Your task to perform on an android device: Open battery settings Image 0: 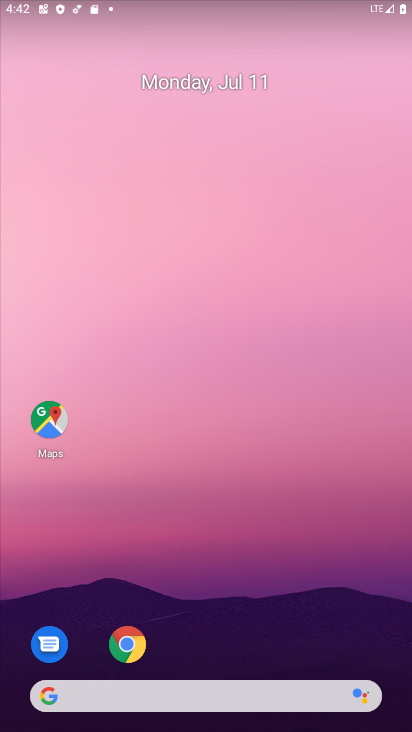
Step 0: press home button
Your task to perform on an android device: Open battery settings Image 1: 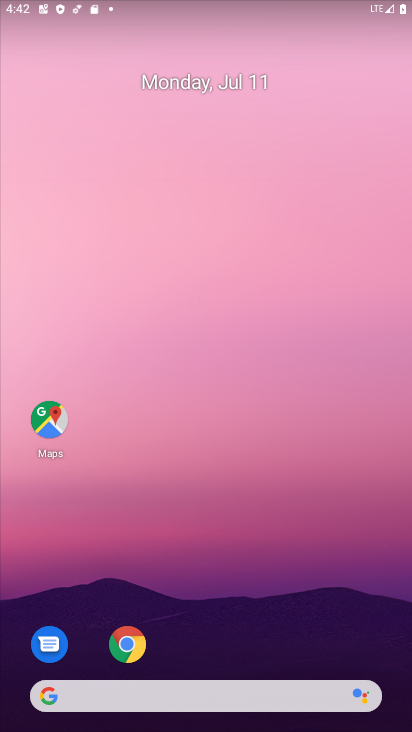
Step 1: drag from (277, 518) to (244, 114)
Your task to perform on an android device: Open battery settings Image 2: 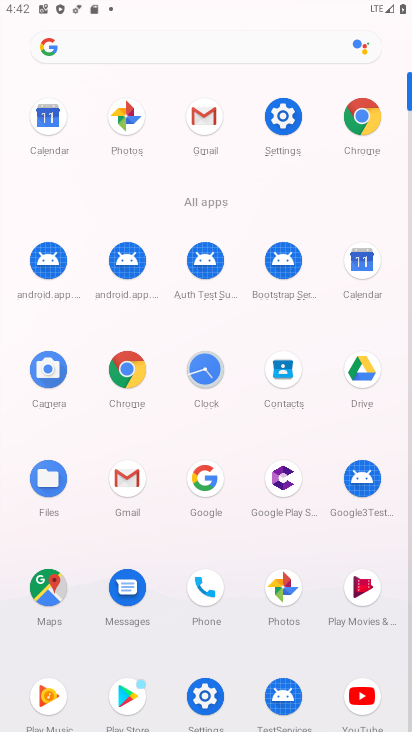
Step 2: click (287, 123)
Your task to perform on an android device: Open battery settings Image 3: 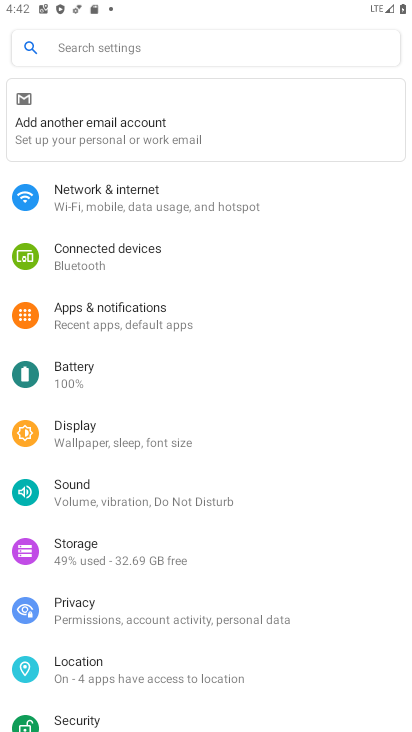
Step 3: click (96, 375)
Your task to perform on an android device: Open battery settings Image 4: 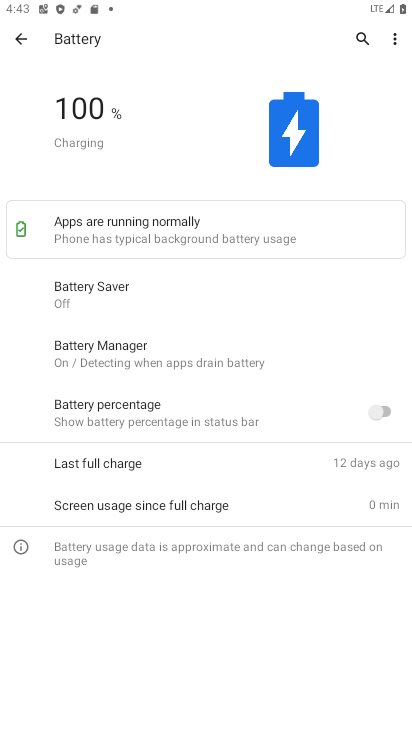
Step 4: task complete